Your task to perform on an android device: toggle show notifications on the lock screen Image 0: 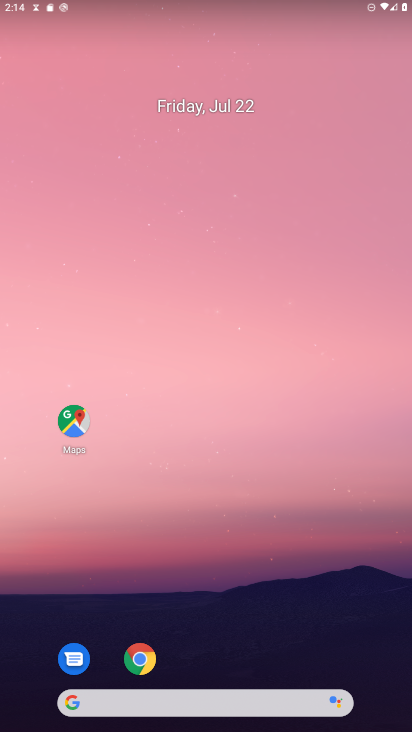
Step 0: drag from (268, 603) to (312, 0)
Your task to perform on an android device: toggle show notifications on the lock screen Image 1: 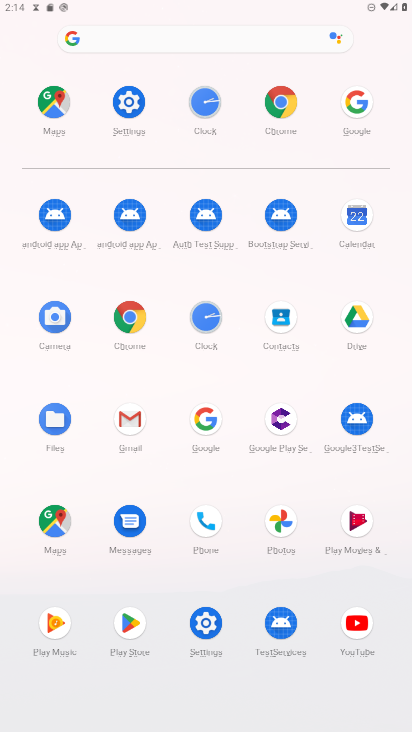
Step 1: click (104, 105)
Your task to perform on an android device: toggle show notifications on the lock screen Image 2: 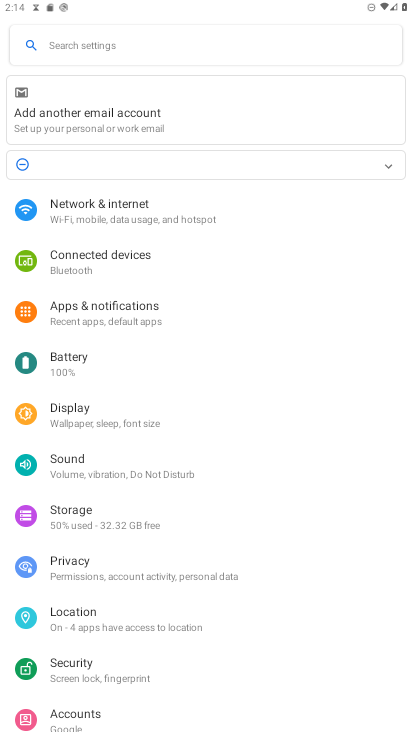
Step 2: click (157, 305)
Your task to perform on an android device: toggle show notifications on the lock screen Image 3: 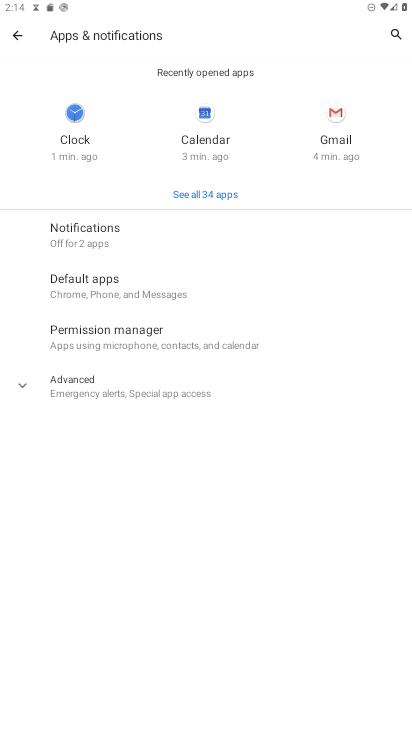
Step 3: click (105, 231)
Your task to perform on an android device: toggle show notifications on the lock screen Image 4: 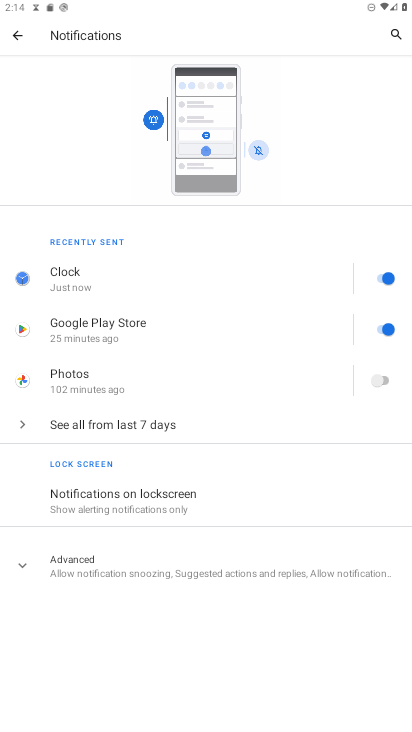
Step 4: click (151, 498)
Your task to perform on an android device: toggle show notifications on the lock screen Image 5: 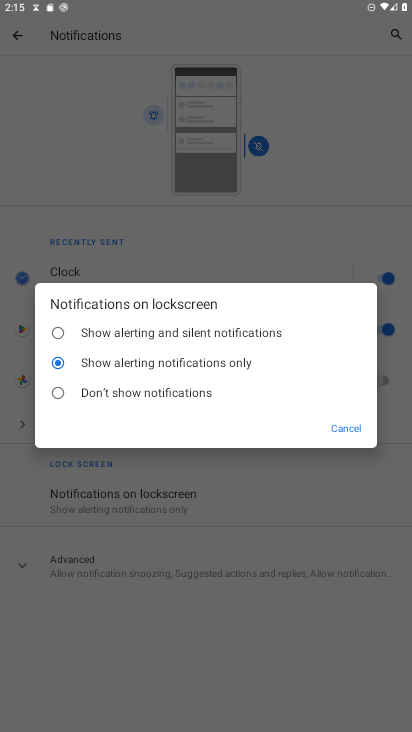
Step 5: click (107, 326)
Your task to perform on an android device: toggle show notifications on the lock screen Image 6: 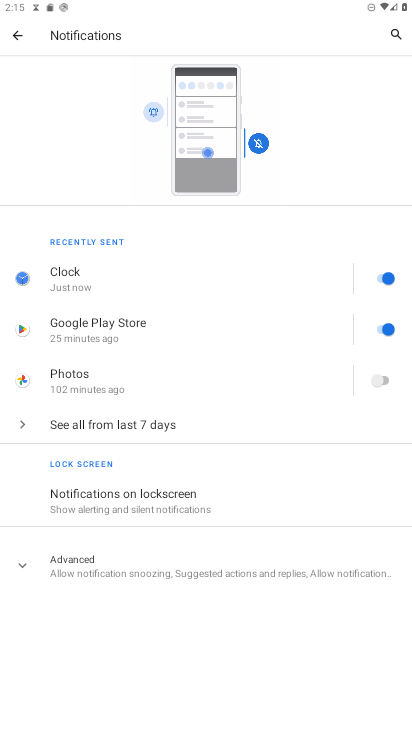
Step 6: task complete